Your task to perform on an android device: Open internet settings Image 0: 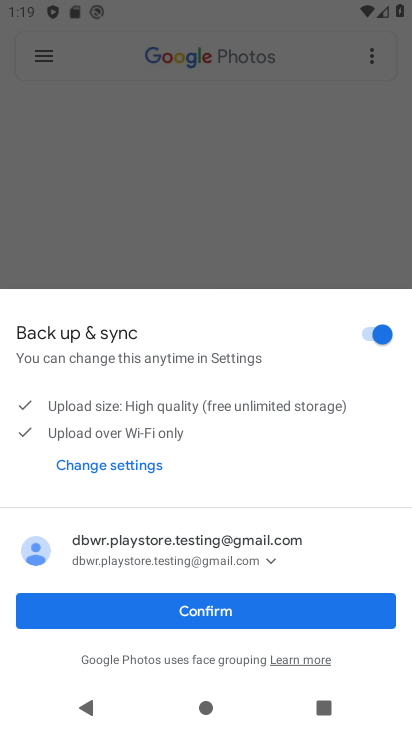
Step 0: click (226, 610)
Your task to perform on an android device: Open internet settings Image 1: 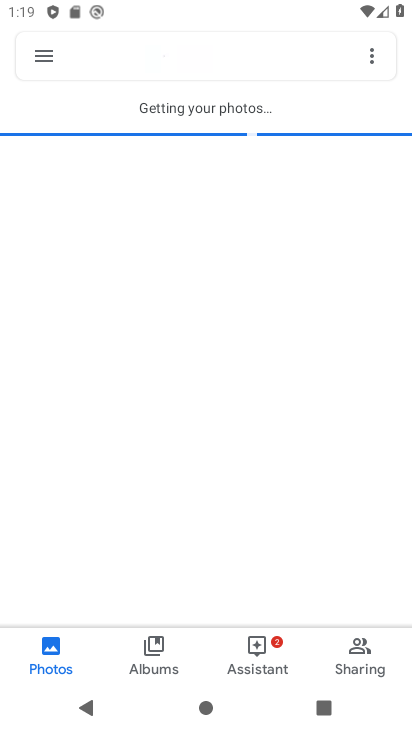
Step 1: press home button
Your task to perform on an android device: Open internet settings Image 2: 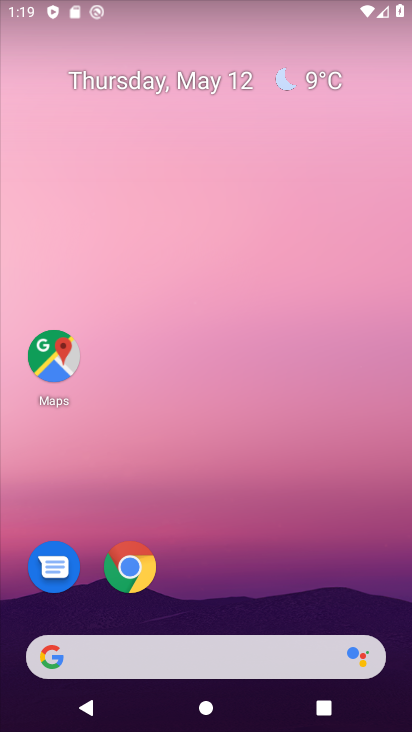
Step 2: drag from (276, 540) to (232, 124)
Your task to perform on an android device: Open internet settings Image 3: 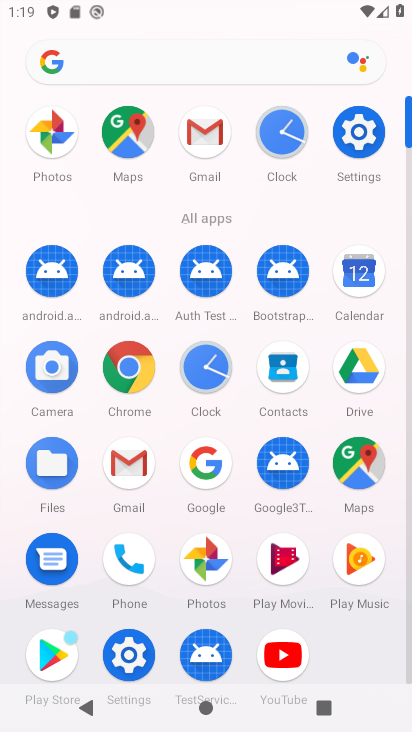
Step 3: click (372, 137)
Your task to perform on an android device: Open internet settings Image 4: 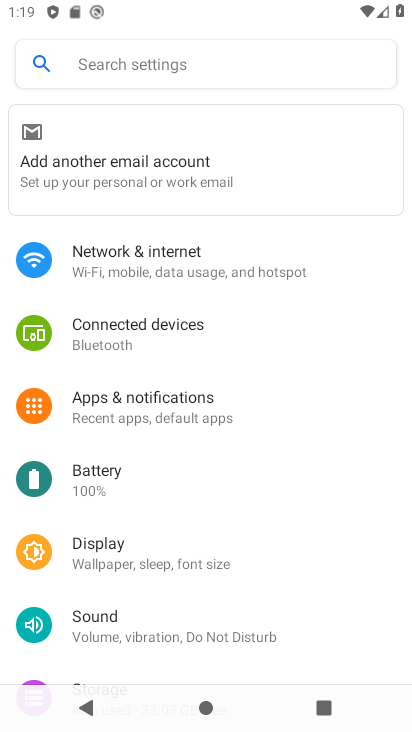
Step 4: click (130, 282)
Your task to perform on an android device: Open internet settings Image 5: 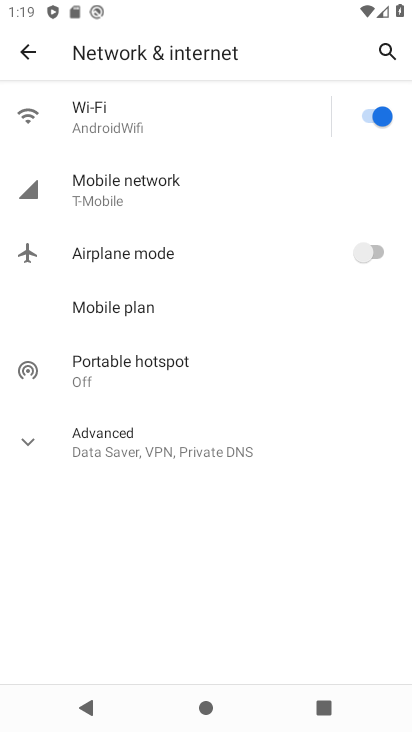
Step 5: task complete